Your task to perform on an android device: Open Chrome and go to the settings page Image 0: 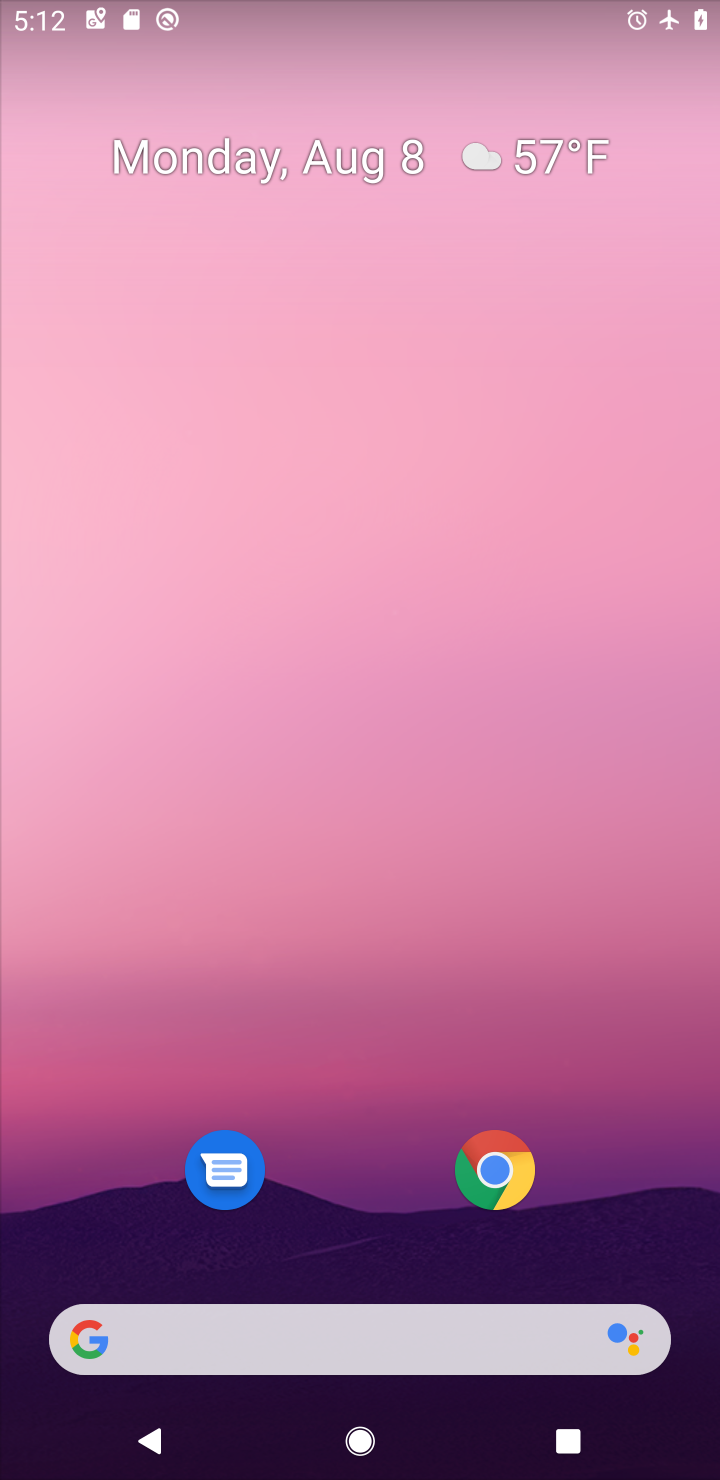
Step 0: click (505, 1198)
Your task to perform on an android device: Open Chrome and go to the settings page Image 1: 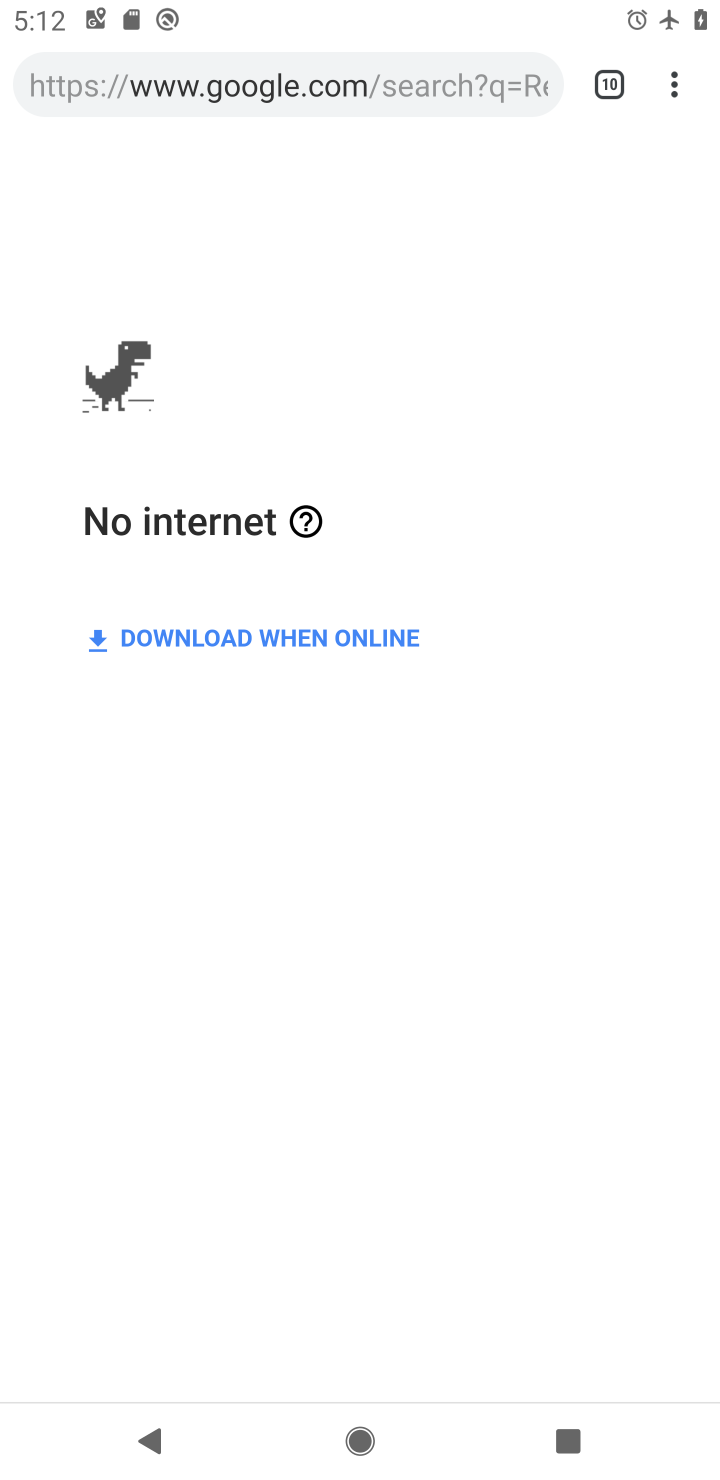
Step 1: click (655, 86)
Your task to perform on an android device: Open Chrome and go to the settings page Image 2: 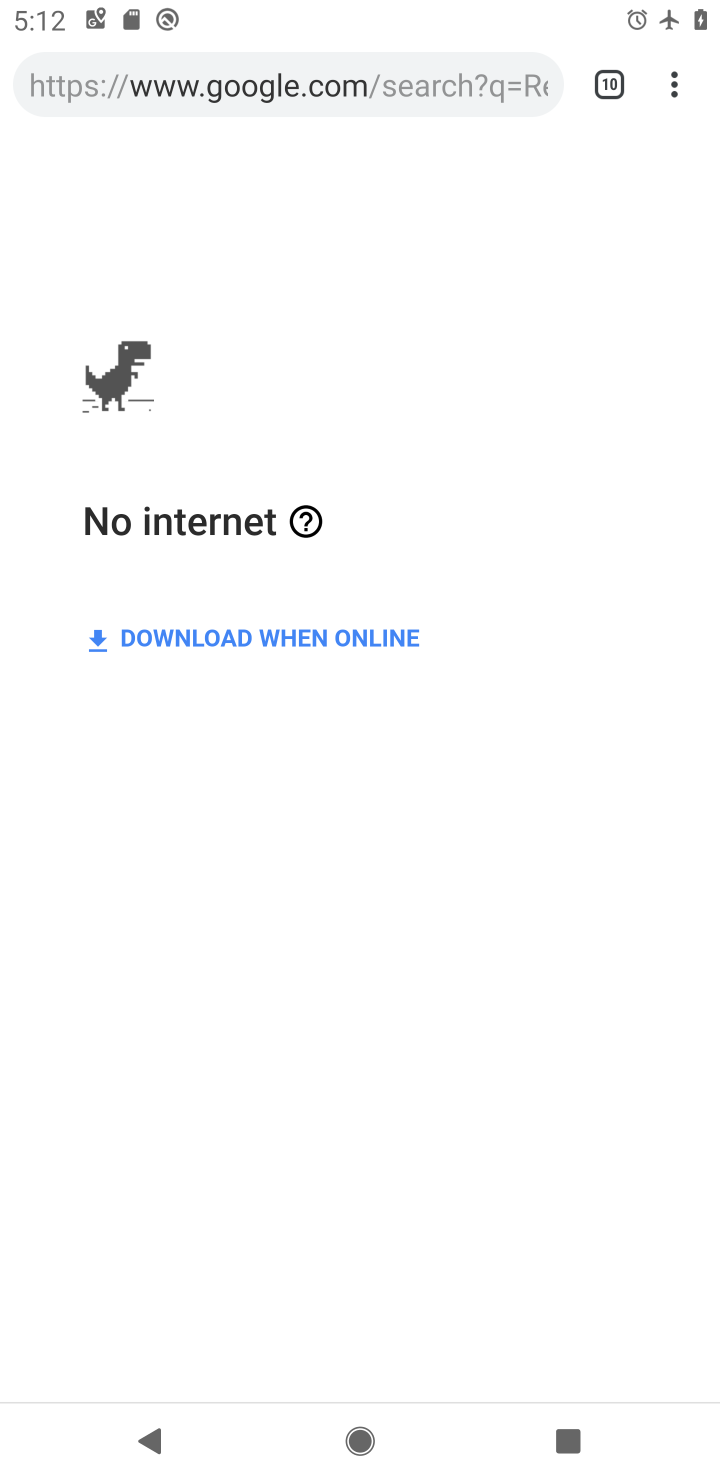
Step 2: task complete